Your task to perform on an android device: Open the stopwatch Image 0: 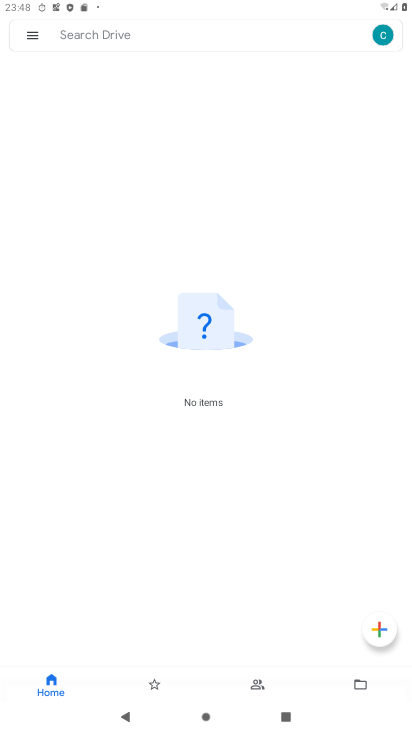
Step 0: press home button
Your task to perform on an android device: Open the stopwatch Image 1: 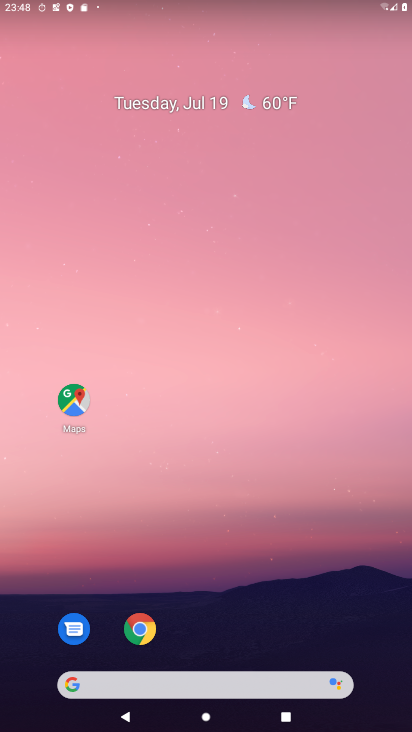
Step 1: drag from (269, 615) to (348, 83)
Your task to perform on an android device: Open the stopwatch Image 2: 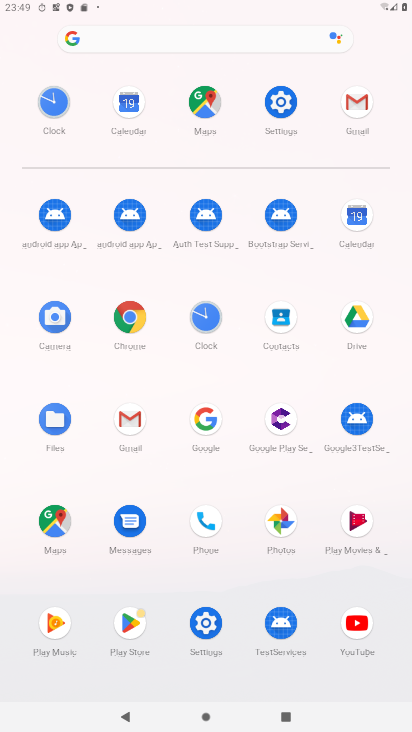
Step 2: click (216, 327)
Your task to perform on an android device: Open the stopwatch Image 3: 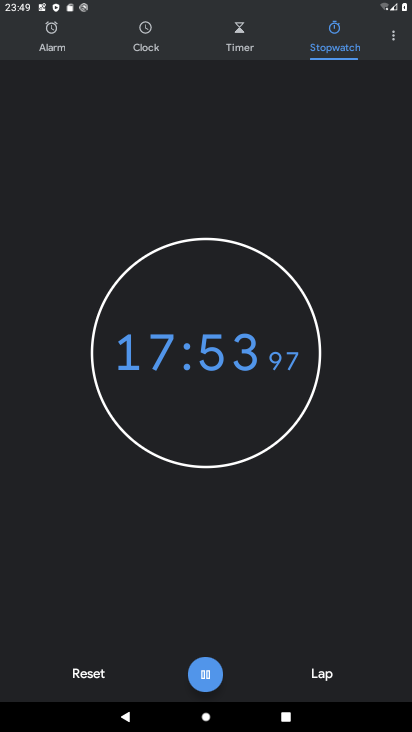
Step 3: task complete